Your task to perform on an android device: Open Amazon Image 0: 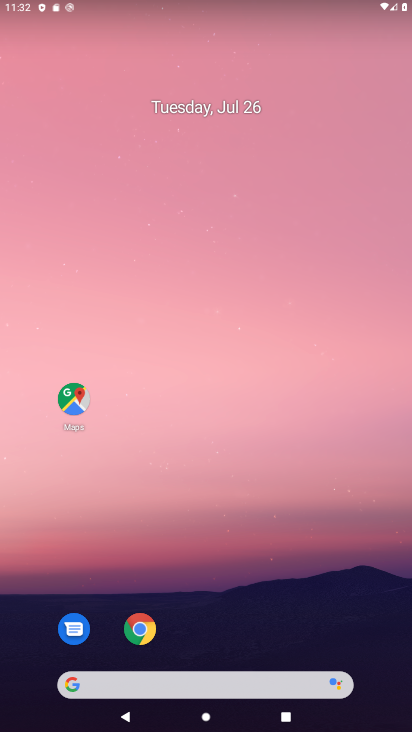
Step 0: click (137, 625)
Your task to perform on an android device: Open Amazon Image 1: 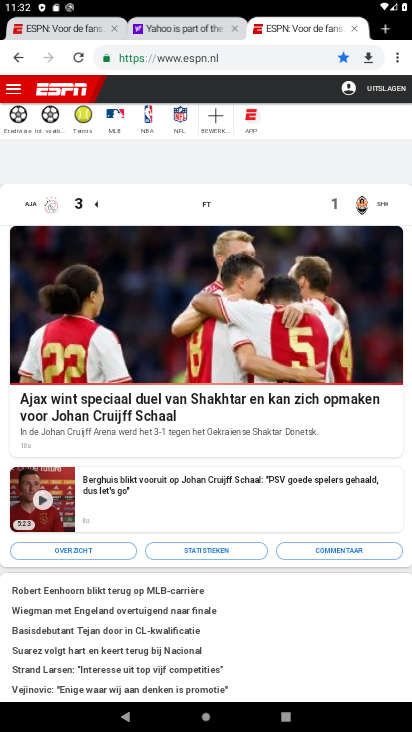
Step 1: click (397, 58)
Your task to perform on an android device: Open Amazon Image 2: 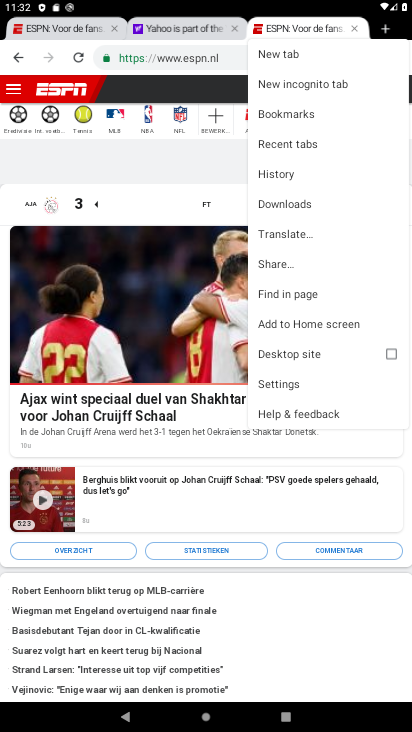
Step 2: click (282, 53)
Your task to perform on an android device: Open Amazon Image 3: 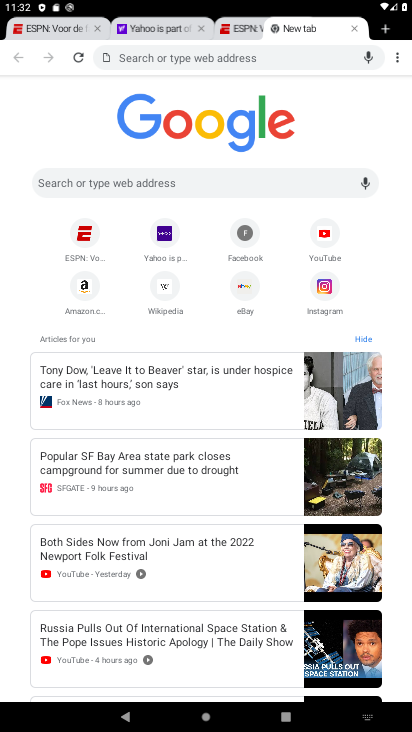
Step 3: click (86, 283)
Your task to perform on an android device: Open Amazon Image 4: 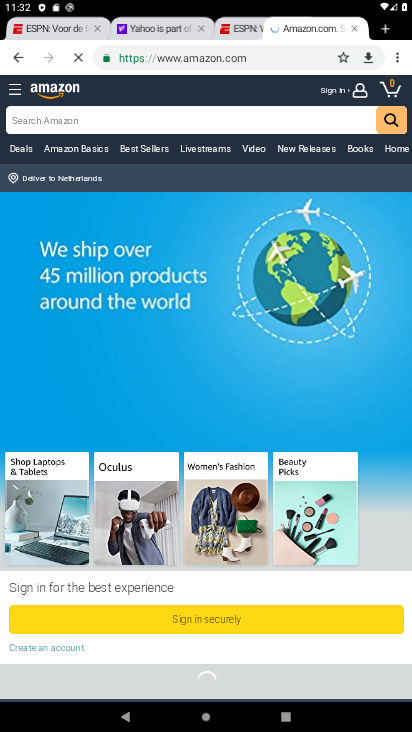
Step 4: task complete